Your task to perform on an android device: open app "Nova Launcher" Image 0: 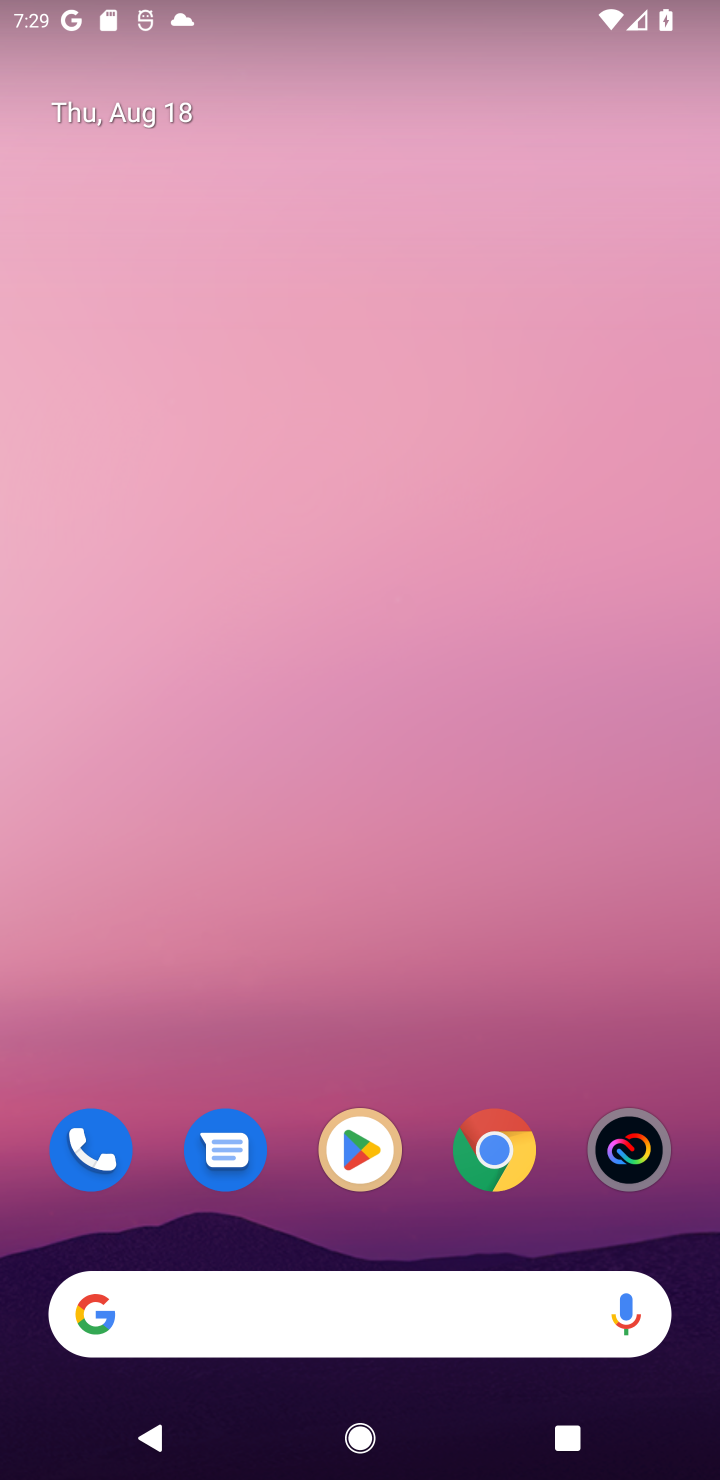
Step 0: drag from (378, 1287) to (601, 30)
Your task to perform on an android device: open app "Nova Launcher" Image 1: 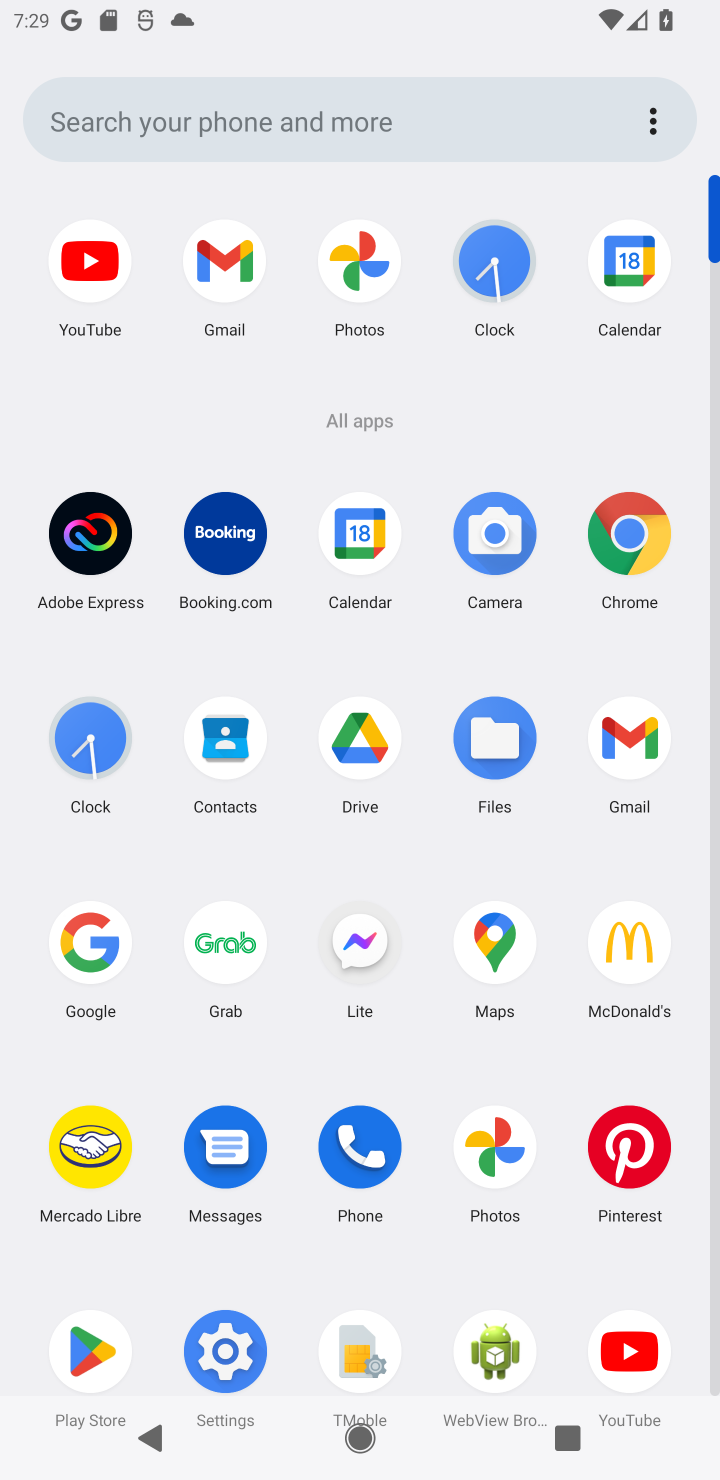
Step 1: click (94, 1345)
Your task to perform on an android device: open app "Nova Launcher" Image 2: 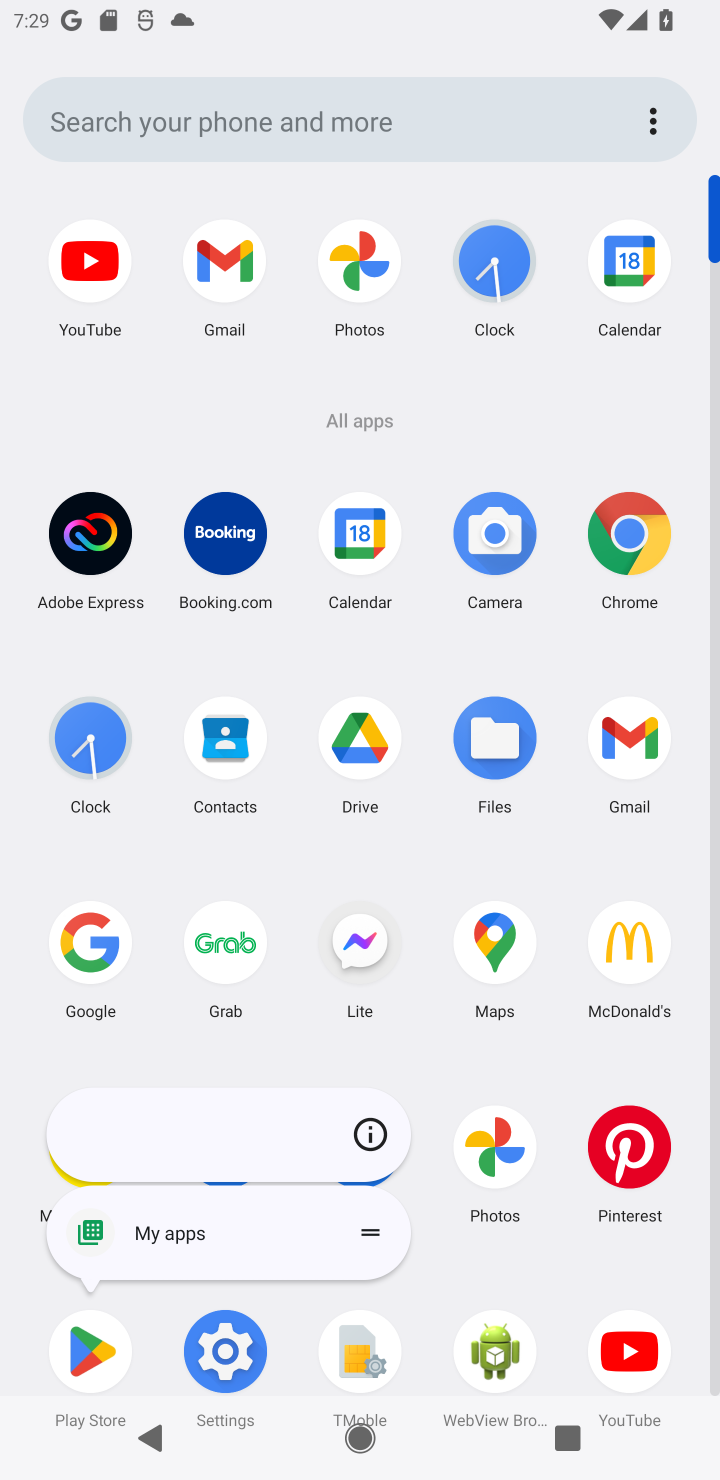
Step 2: click (31, 1345)
Your task to perform on an android device: open app "Nova Launcher" Image 3: 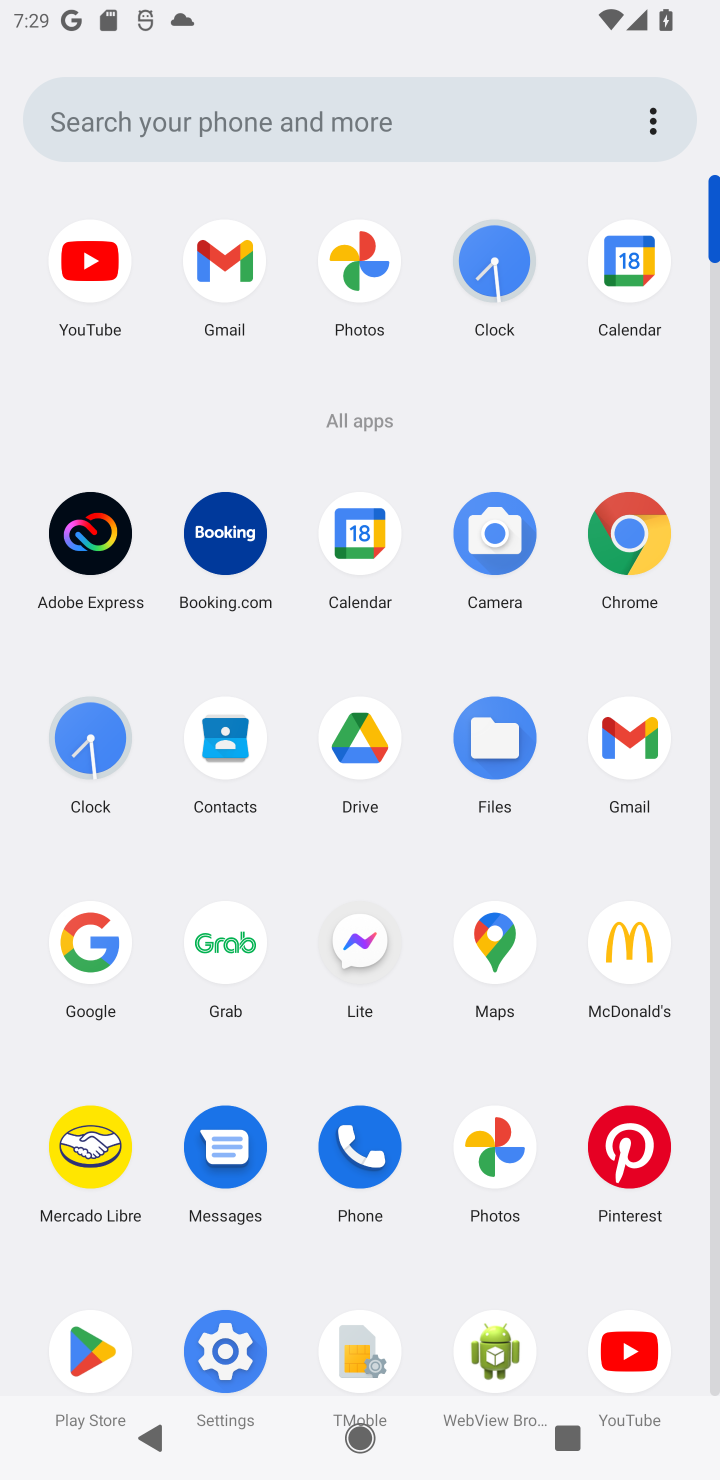
Step 3: click (71, 1346)
Your task to perform on an android device: open app "Nova Launcher" Image 4: 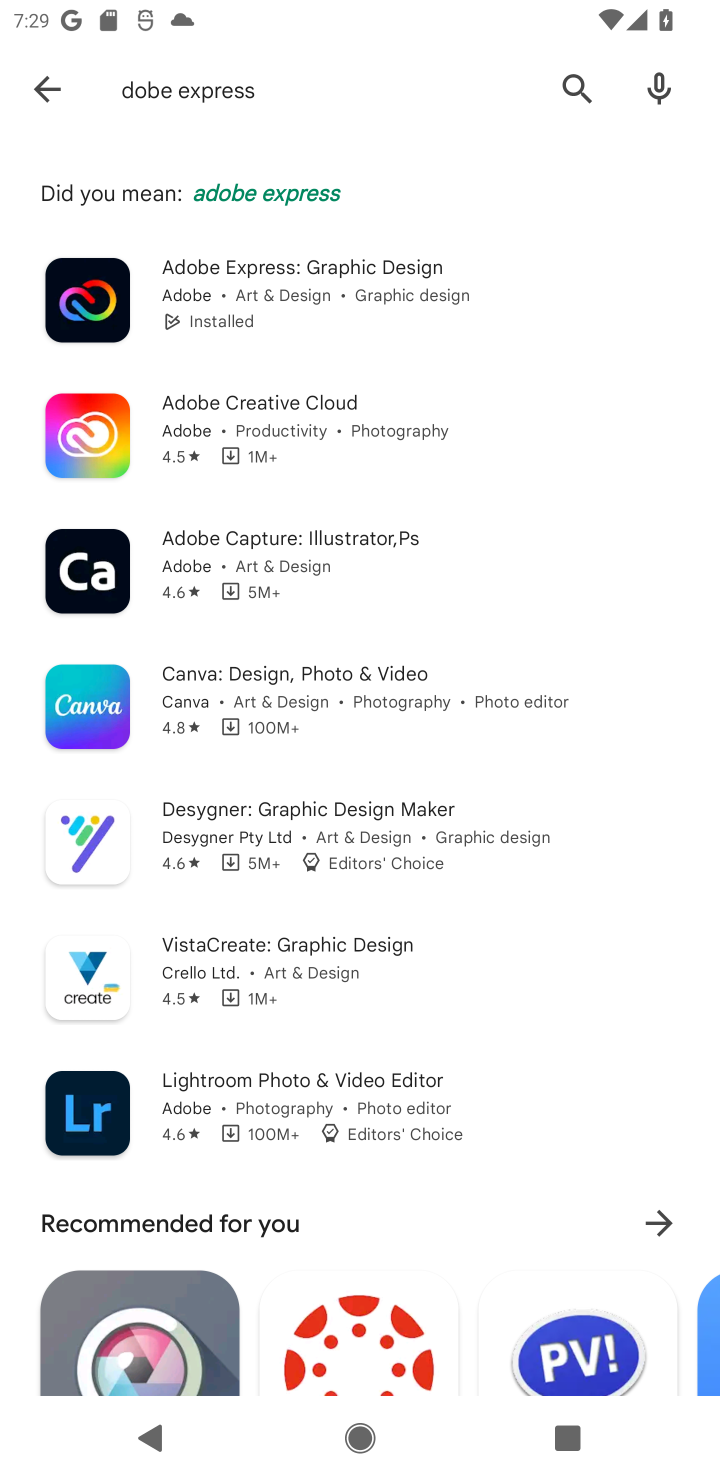
Step 4: click (38, 100)
Your task to perform on an android device: open app "Nova Launcher" Image 5: 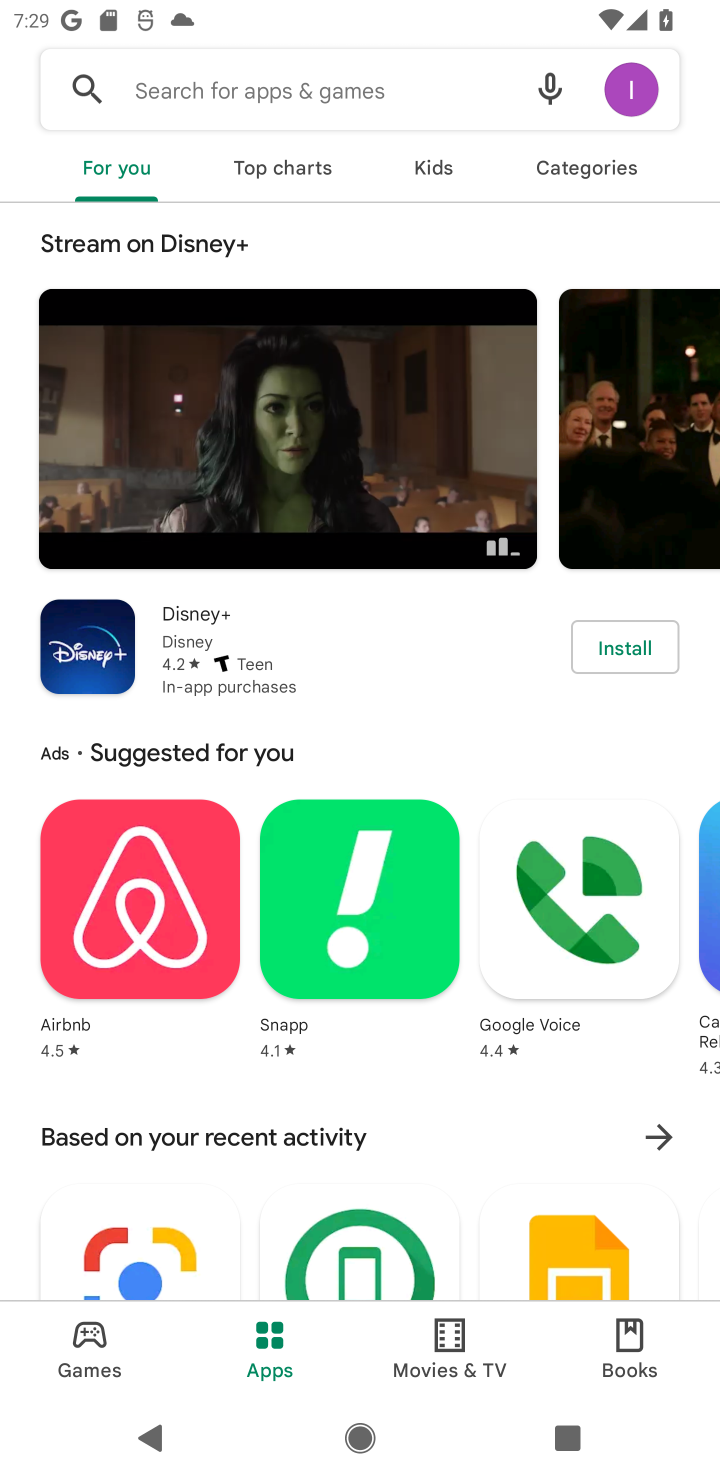
Step 5: click (175, 66)
Your task to perform on an android device: open app "Nova Launcher" Image 6: 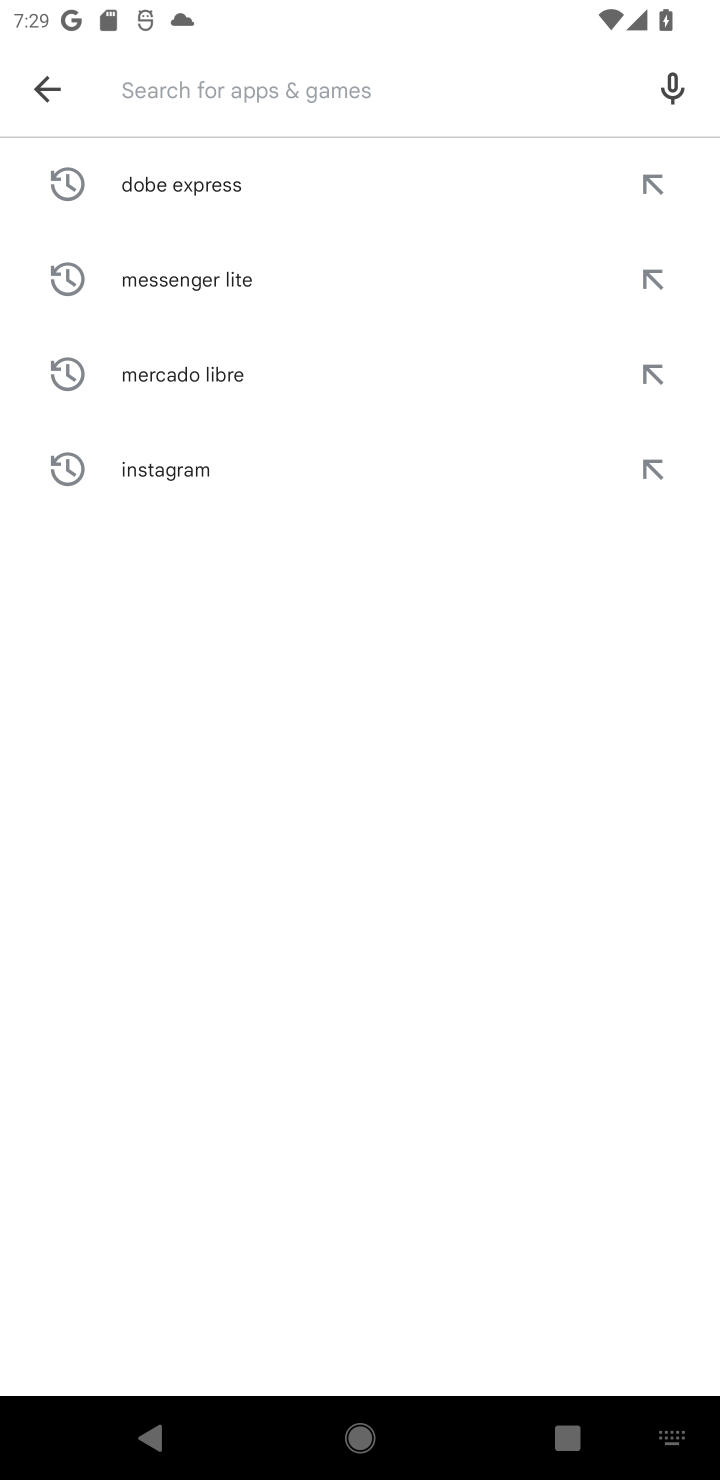
Step 6: type "Nova Launcher"
Your task to perform on an android device: open app "Nova Launcher" Image 7: 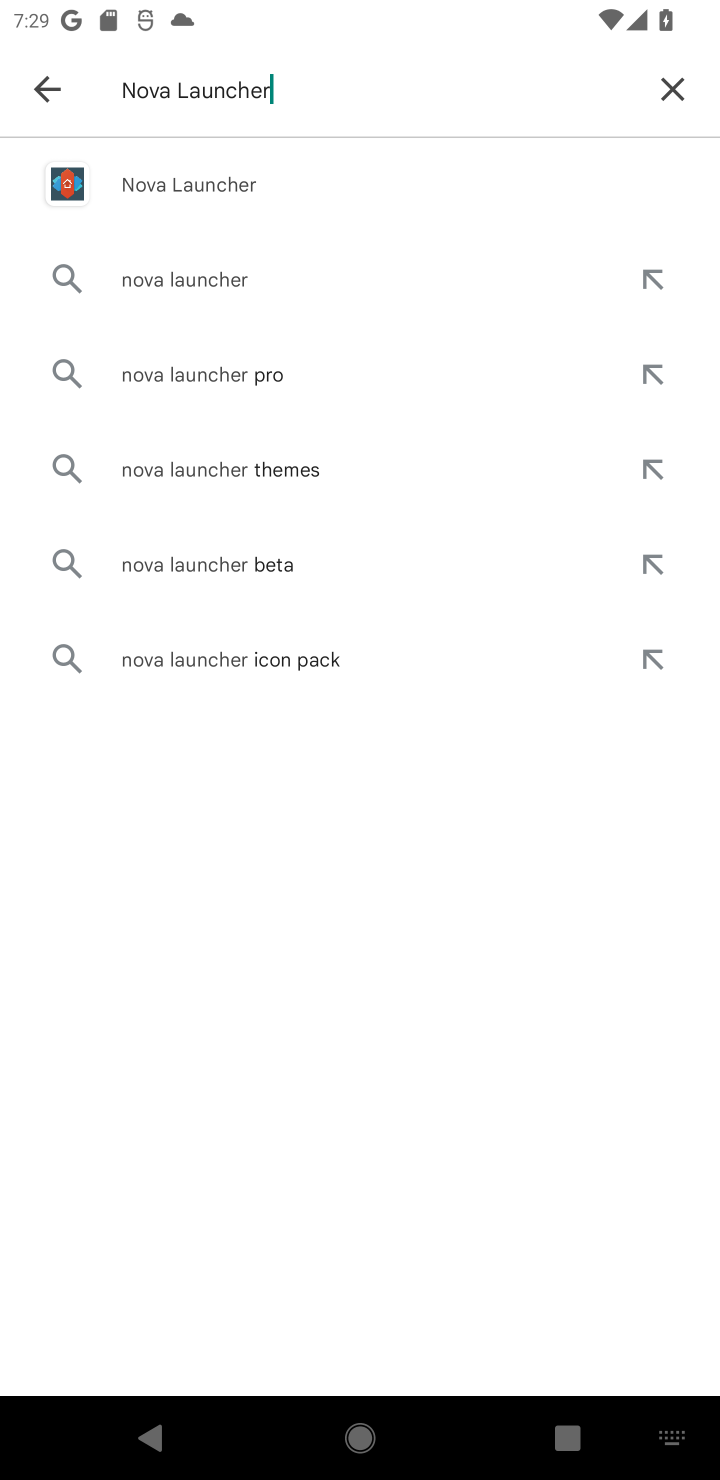
Step 7: click (226, 189)
Your task to perform on an android device: open app "Nova Launcher" Image 8: 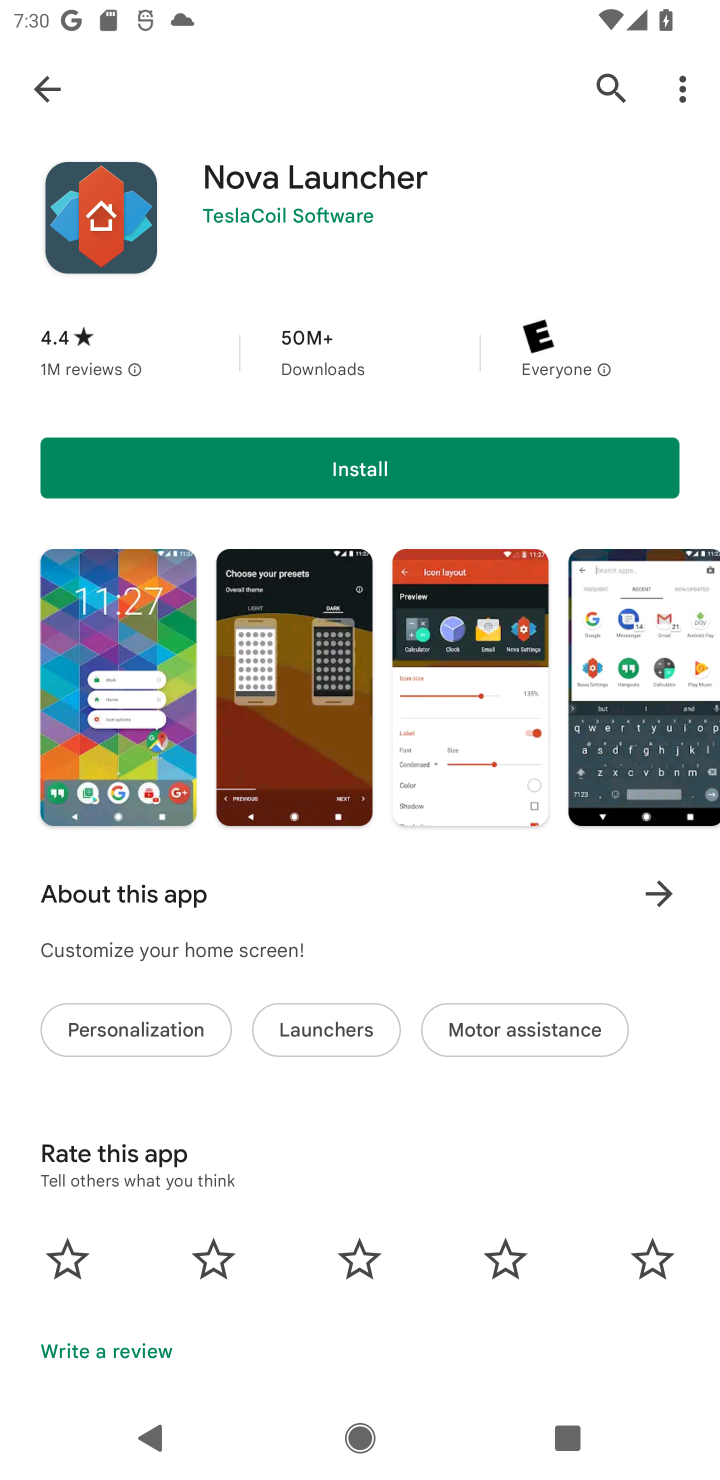
Step 8: task complete